Your task to perform on an android device: check android version Image 0: 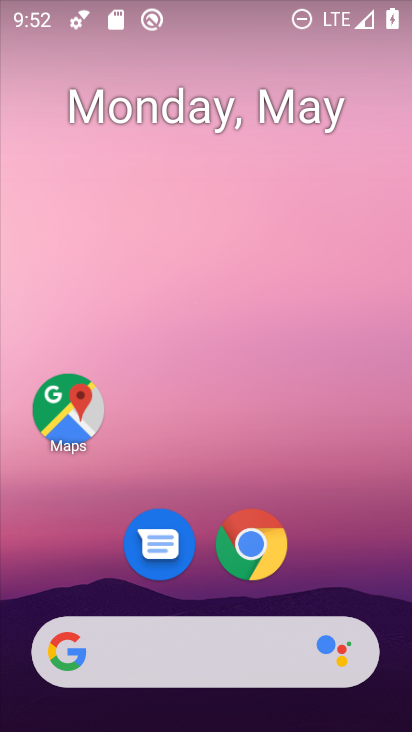
Step 0: drag from (386, 568) to (322, 72)
Your task to perform on an android device: check android version Image 1: 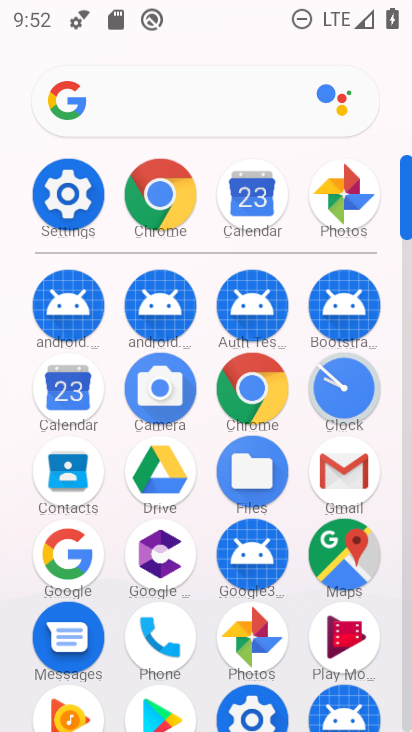
Step 1: click (72, 205)
Your task to perform on an android device: check android version Image 2: 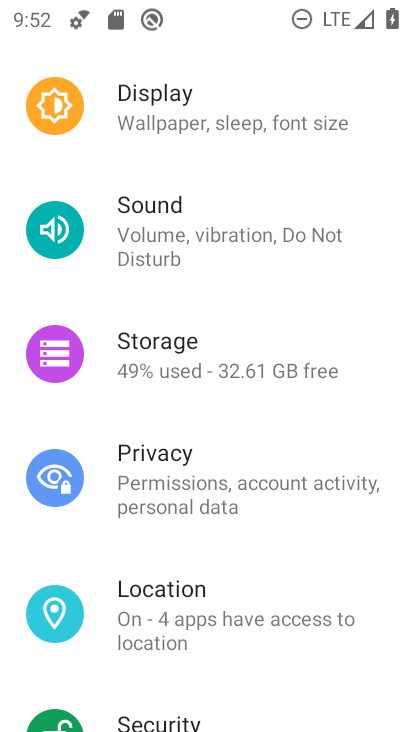
Step 2: drag from (291, 658) to (294, 274)
Your task to perform on an android device: check android version Image 3: 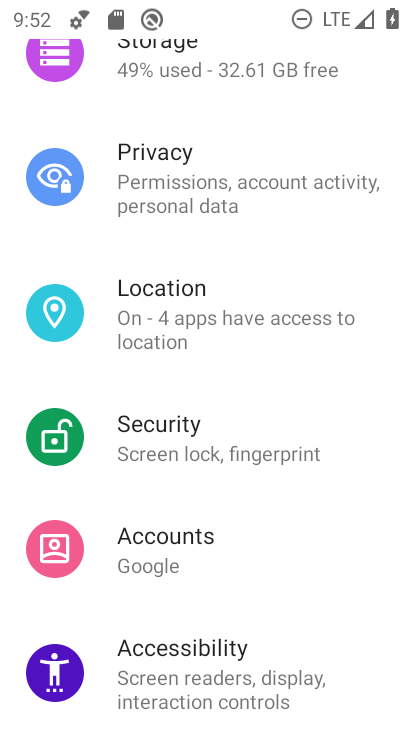
Step 3: drag from (316, 539) to (344, 139)
Your task to perform on an android device: check android version Image 4: 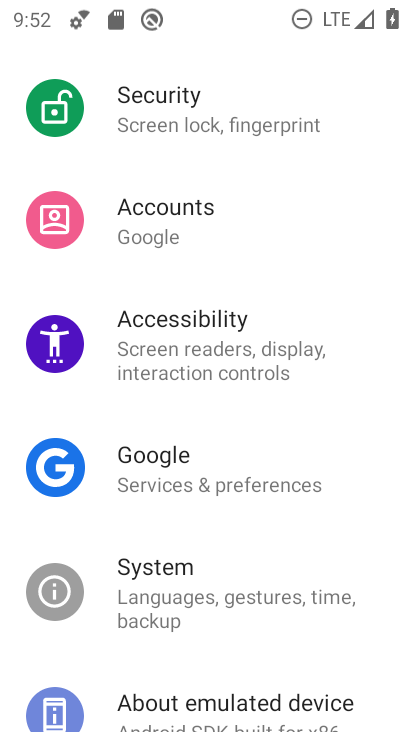
Step 4: drag from (291, 664) to (319, 373)
Your task to perform on an android device: check android version Image 5: 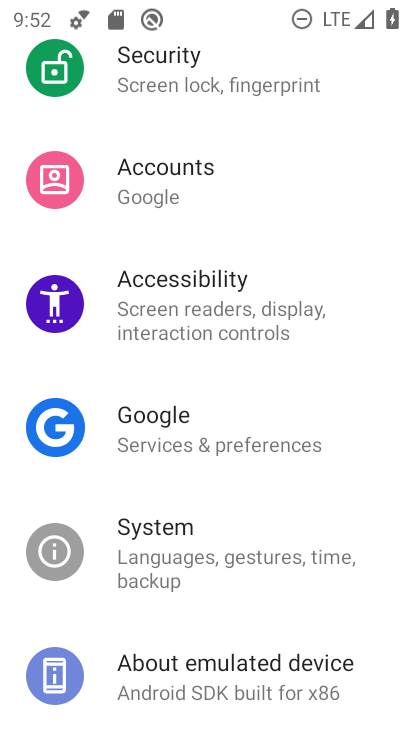
Step 5: click (282, 645)
Your task to perform on an android device: check android version Image 6: 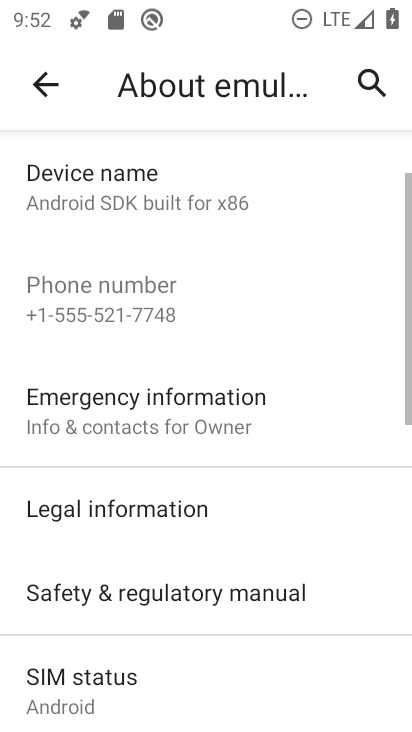
Step 6: click (296, 667)
Your task to perform on an android device: check android version Image 7: 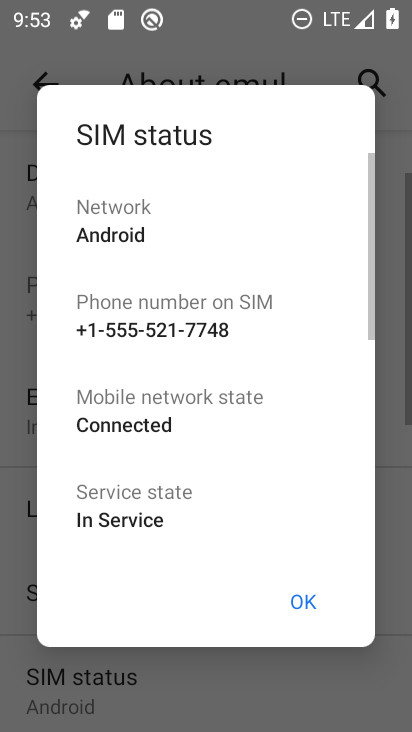
Step 7: click (296, 611)
Your task to perform on an android device: check android version Image 8: 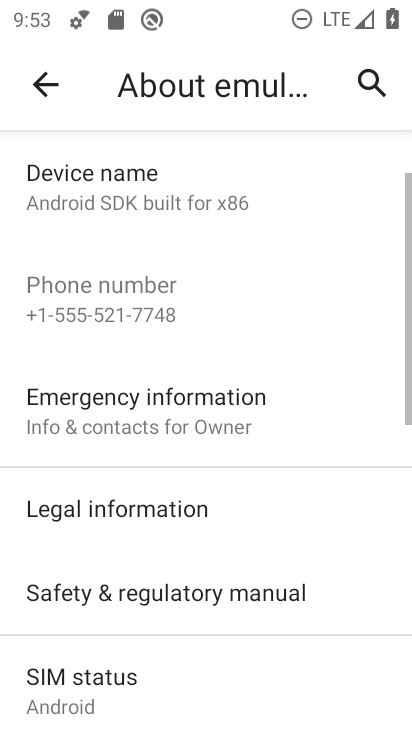
Step 8: drag from (284, 663) to (324, 235)
Your task to perform on an android device: check android version Image 9: 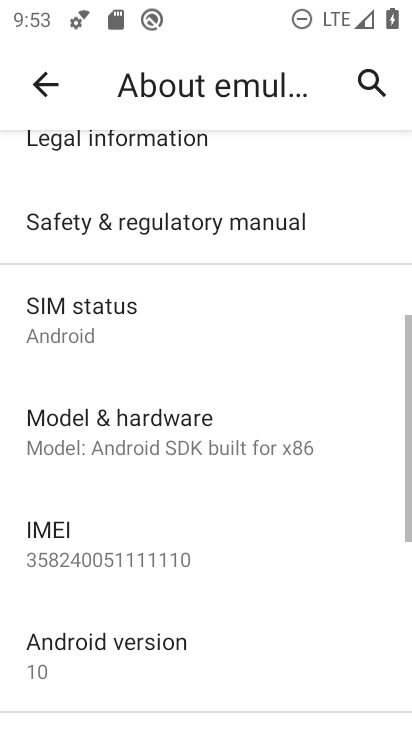
Step 9: click (206, 646)
Your task to perform on an android device: check android version Image 10: 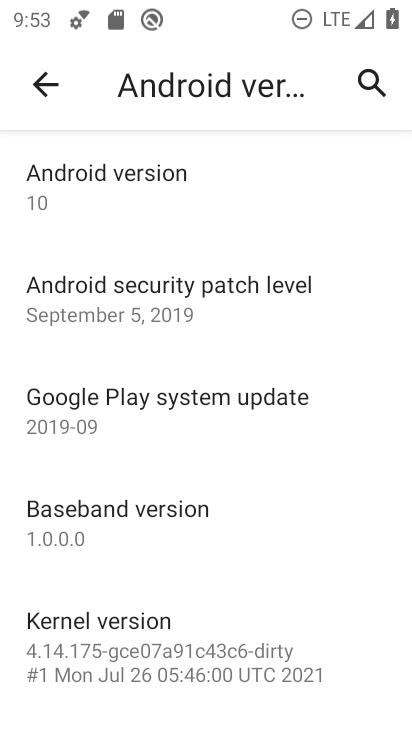
Step 10: task complete